Your task to perform on an android device: toggle notifications settings in the gmail app Image 0: 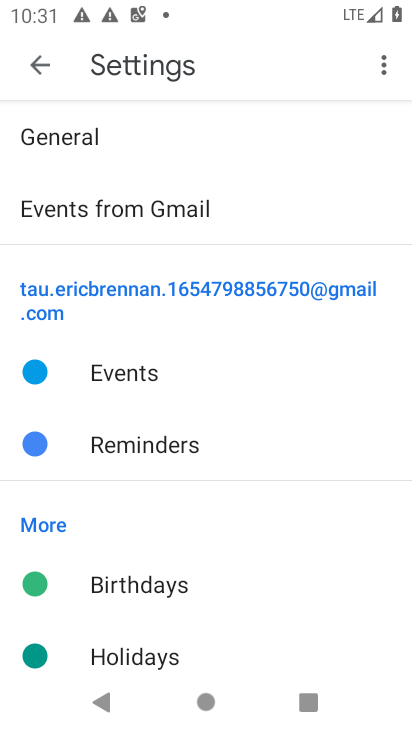
Step 0: press home button
Your task to perform on an android device: toggle notifications settings in the gmail app Image 1: 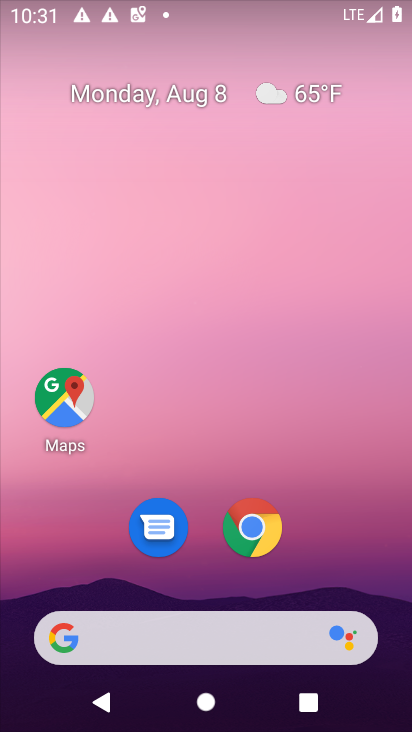
Step 1: drag from (387, 701) to (320, 203)
Your task to perform on an android device: toggle notifications settings in the gmail app Image 2: 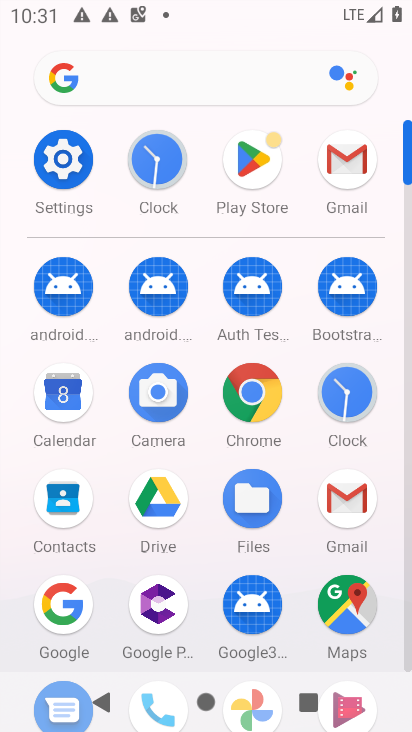
Step 2: click (346, 503)
Your task to perform on an android device: toggle notifications settings in the gmail app Image 3: 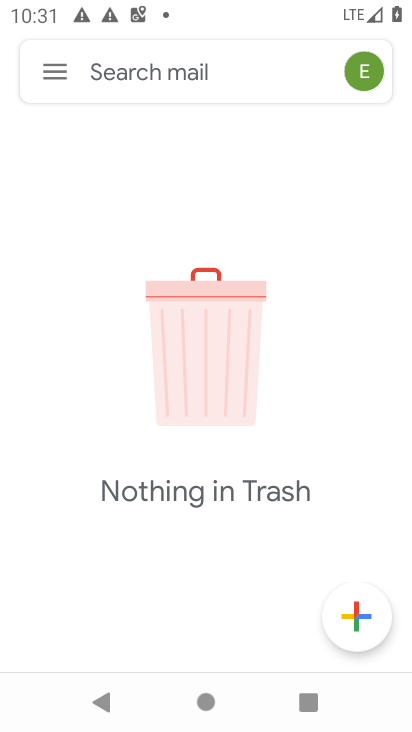
Step 3: click (48, 66)
Your task to perform on an android device: toggle notifications settings in the gmail app Image 4: 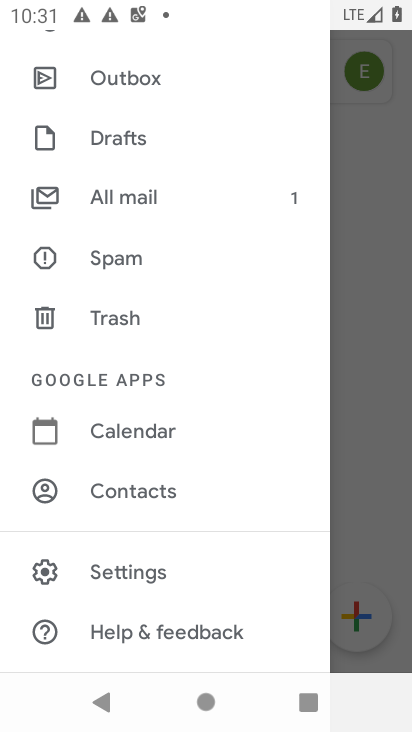
Step 4: click (100, 566)
Your task to perform on an android device: toggle notifications settings in the gmail app Image 5: 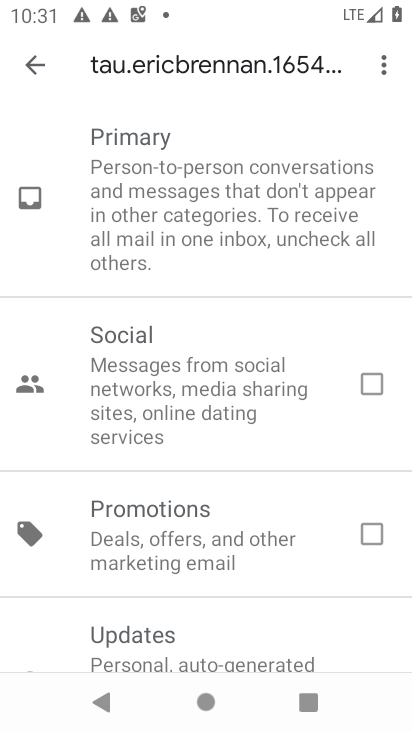
Step 5: click (35, 63)
Your task to perform on an android device: toggle notifications settings in the gmail app Image 6: 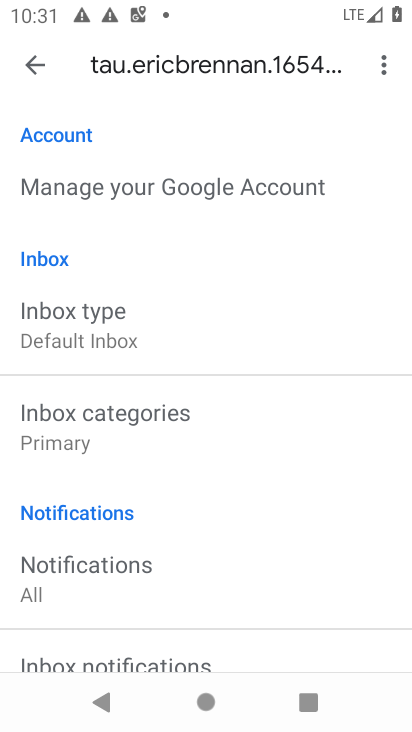
Step 6: click (74, 557)
Your task to perform on an android device: toggle notifications settings in the gmail app Image 7: 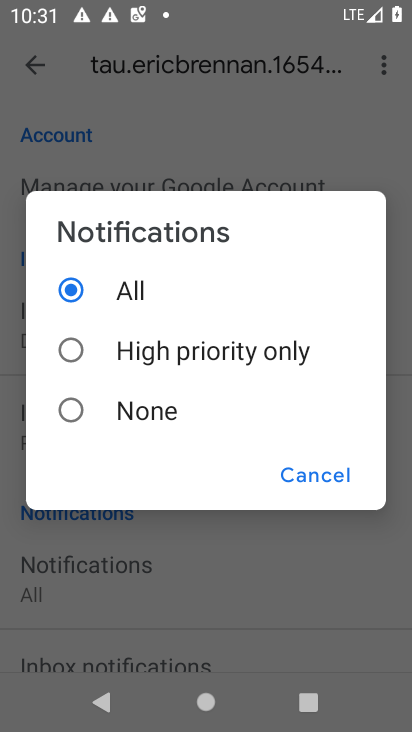
Step 7: click (69, 348)
Your task to perform on an android device: toggle notifications settings in the gmail app Image 8: 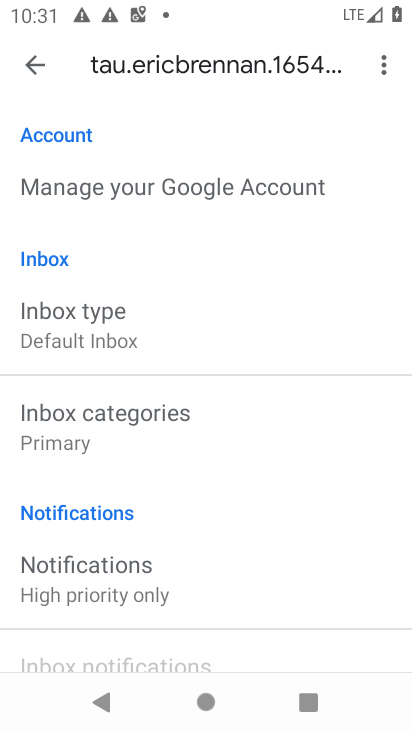
Step 8: task complete